Your task to perform on an android device: Find coffee shops on Maps Image 0: 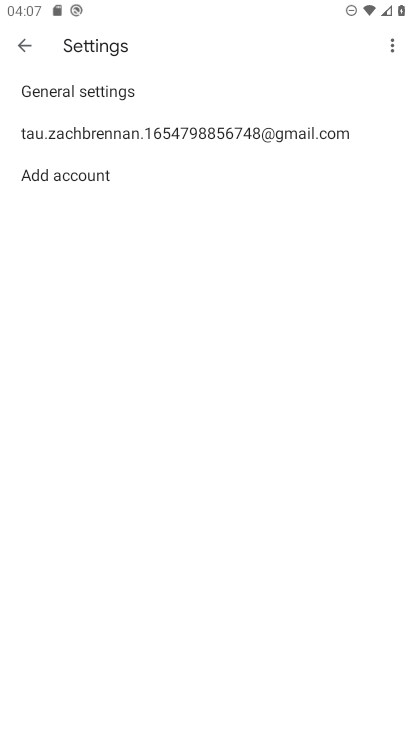
Step 0: press home button
Your task to perform on an android device: Find coffee shops on Maps Image 1: 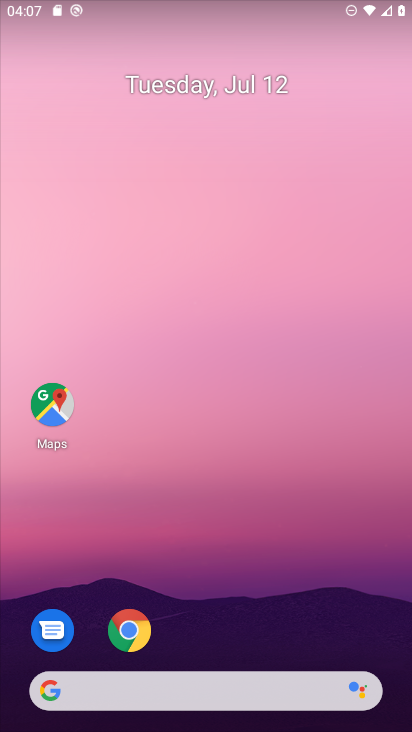
Step 1: click (51, 404)
Your task to perform on an android device: Find coffee shops on Maps Image 2: 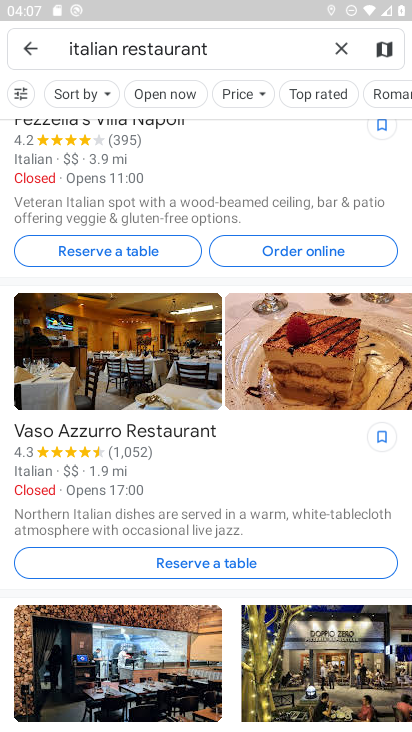
Step 2: click (340, 47)
Your task to perform on an android device: Find coffee shops on Maps Image 3: 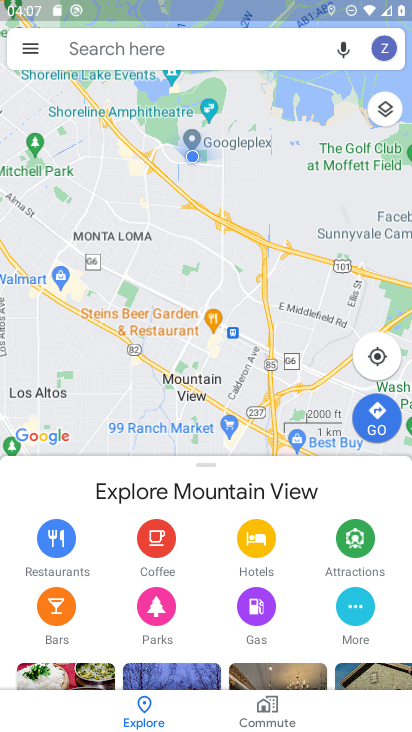
Step 3: click (96, 46)
Your task to perform on an android device: Find coffee shops on Maps Image 4: 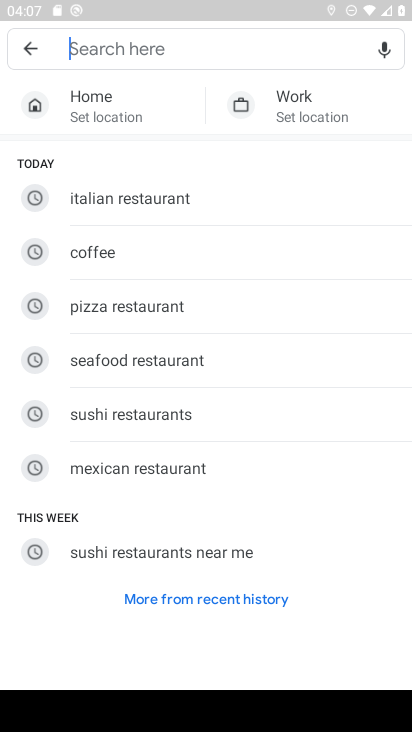
Step 4: type "coffee shop"
Your task to perform on an android device: Find coffee shops on Maps Image 5: 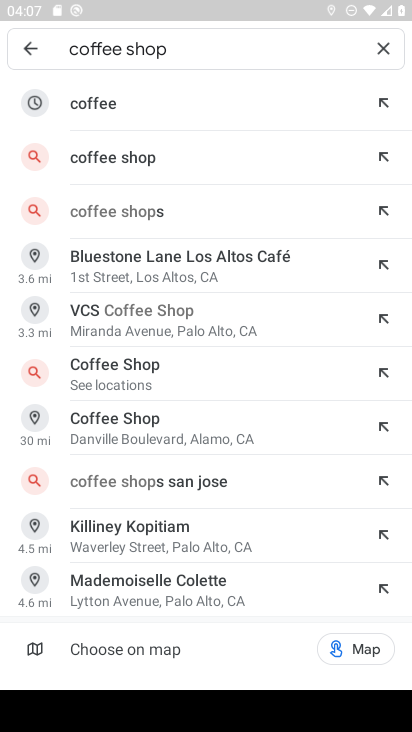
Step 5: click (101, 153)
Your task to perform on an android device: Find coffee shops on Maps Image 6: 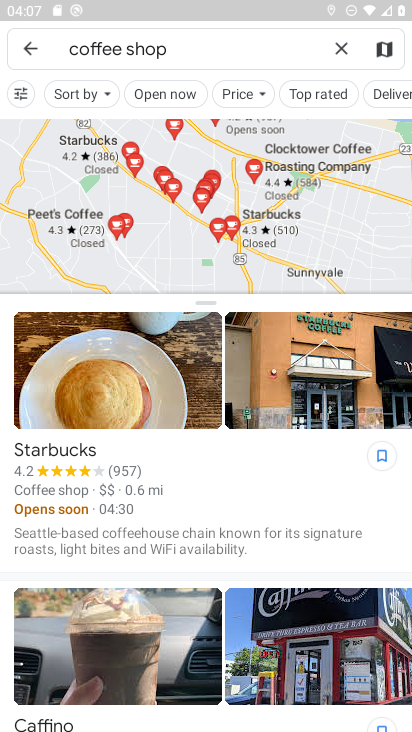
Step 6: task complete